Your task to perform on an android device: turn on the 24-hour format for clock Image 0: 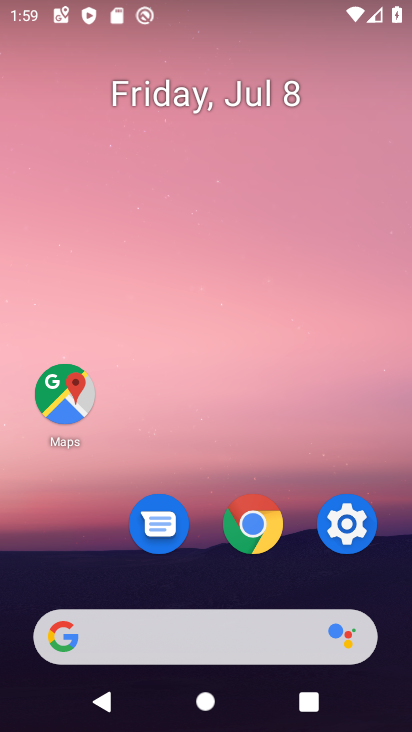
Step 0: drag from (234, 651) to (242, 123)
Your task to perform on an android device: turn on the 24-hour format for clock Image 1: 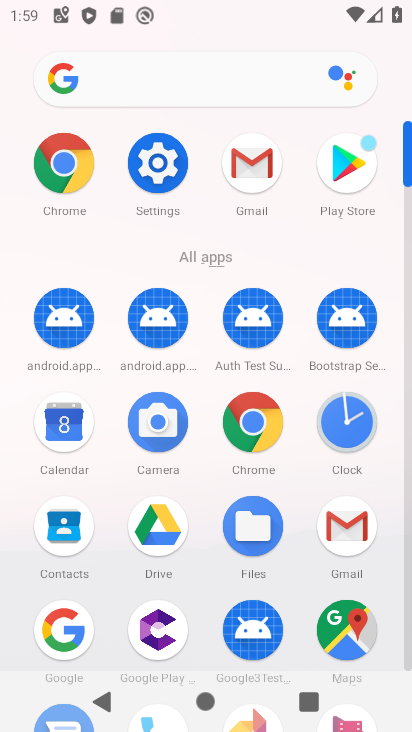
Step 1: click (334, 413)
Your task to perform on an android device: turn on the 24-hour format for clock Image 2: 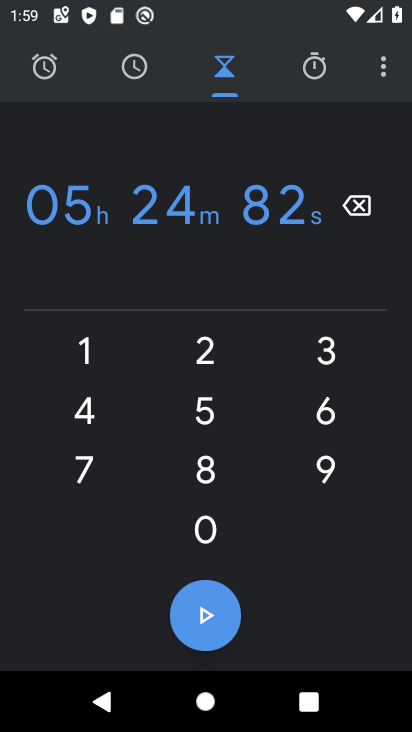
Step 2: click (376, 69)
Your task to perform on an android device: turn on the 24-hour format for clock Image 3: 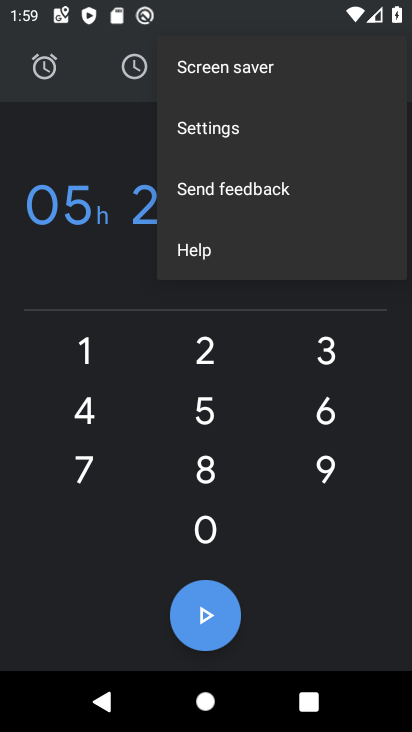
Step 3: click (267, 123)
Your task to perform on an android device: turn on the 24-hour format for clock Image 4: 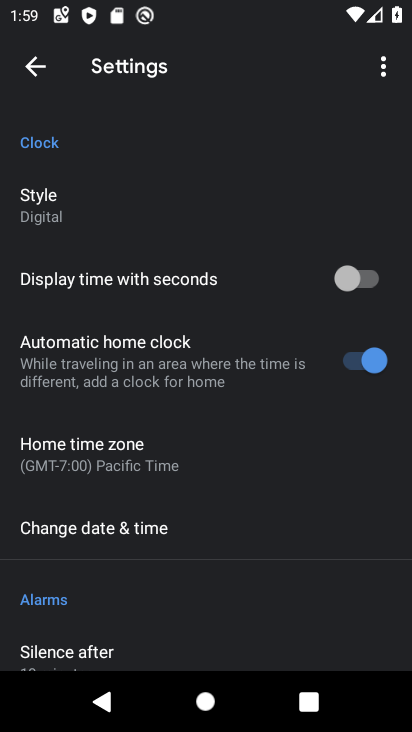
Step 4: click (160, 524)
Your task to perform on an android device: turn on the 24-hour format for clock Image 5: 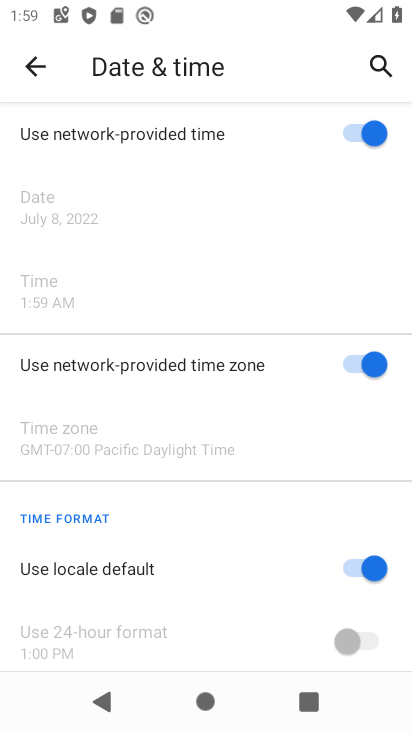
Step 5: click (347, 573)
Your task to perform on an android device: turn on the 24-hour format for clock Image 6: 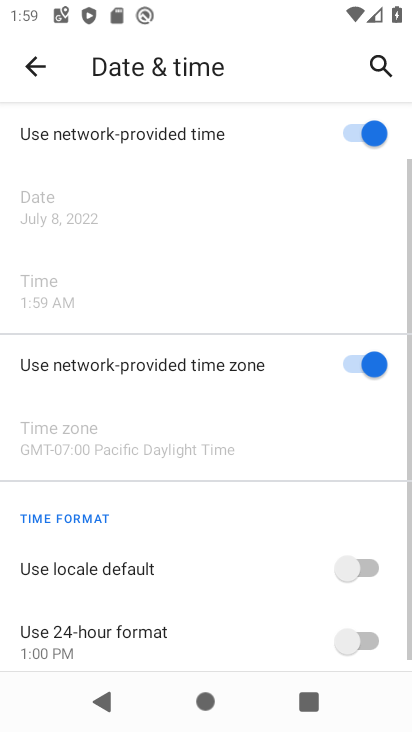
Step 6: click (370, 642)
Your task to perform on an android device: turn on the 24-hour format for clock Image 7: 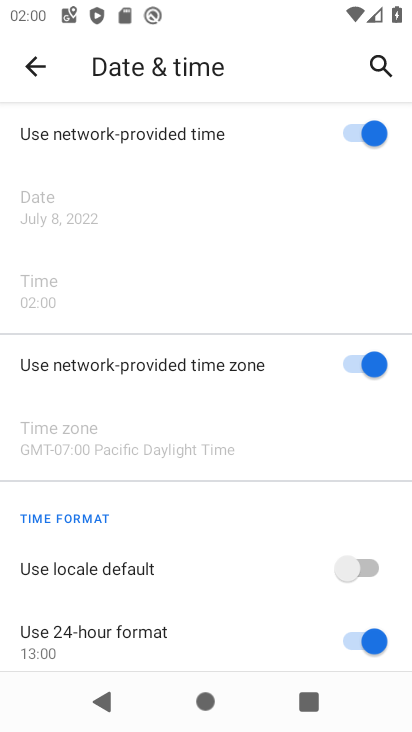
Step 7: task complete